Your task to perform on an android device: all mails in gmail Image 0: 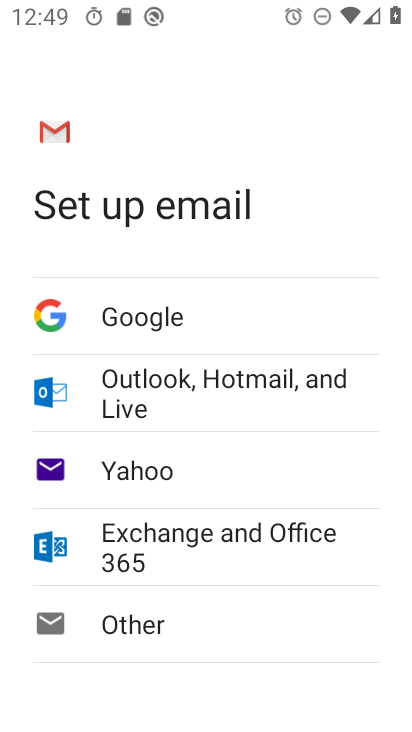
Step 0: press back button
Your task to perform on an android device: all mails in gmail Image 1: 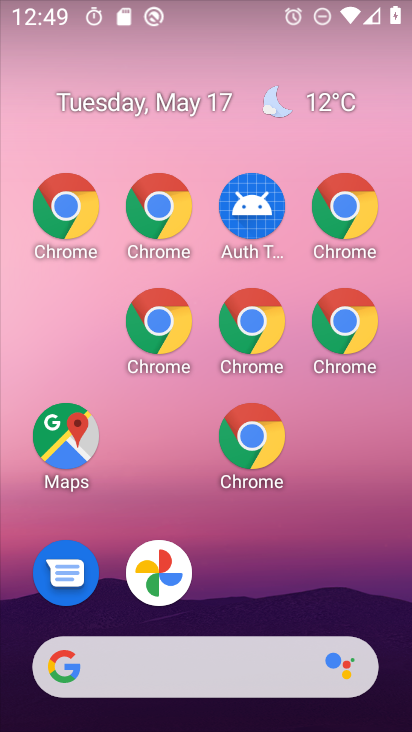
Step 1: press home button
Your task to perform on an android device: all mails in gmail Image 2: 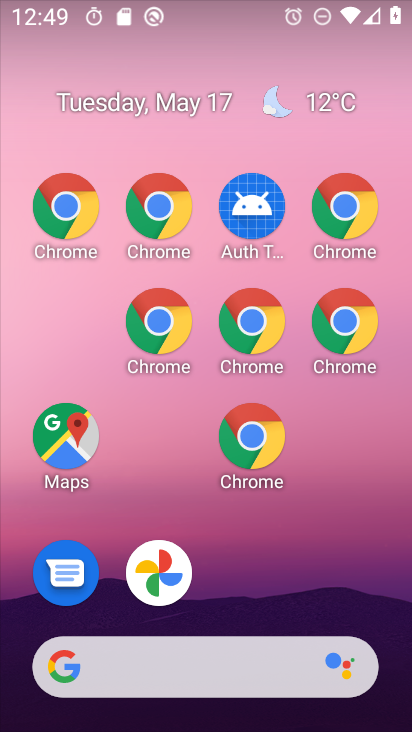
Step 2: drag from (362, 630) to (185, 197)
Your task to perform on an android device: all mails in gmail Image 3: 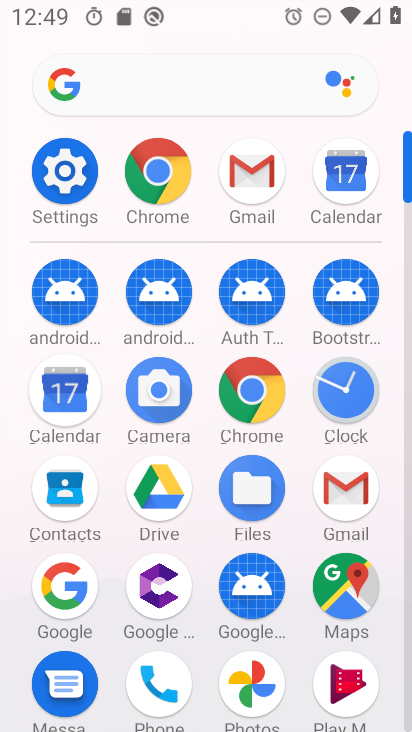
Step 3: click (358, 492)
Your task to perform on an android device: all mails in gmail Image 4: 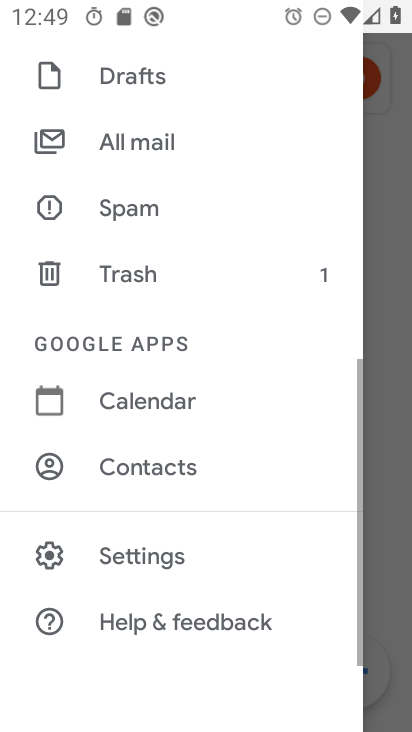
Step 4: click (337, 483)
Your task to perform on an android device: all mails in gmail Image 5: 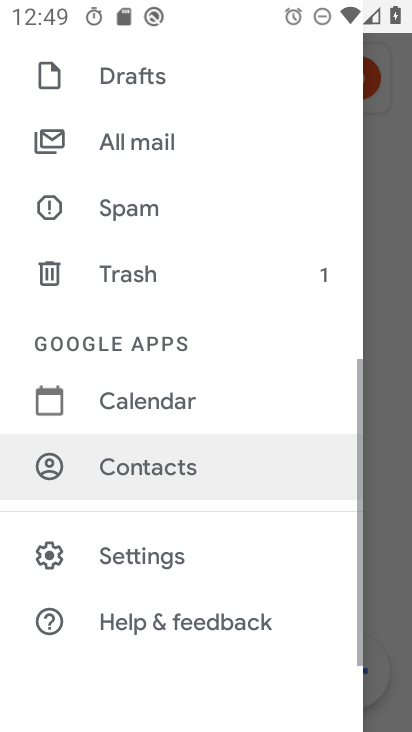
Step 5: click (343, 487)
Your task to perform on an android device: all mails in gmail Image 6: 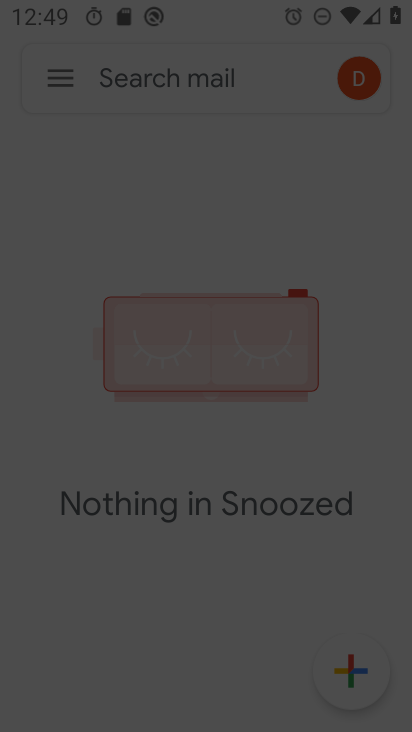
Step 6: click (143, 144)
Your task to perform on an android device: all mails in gmail Image 7: 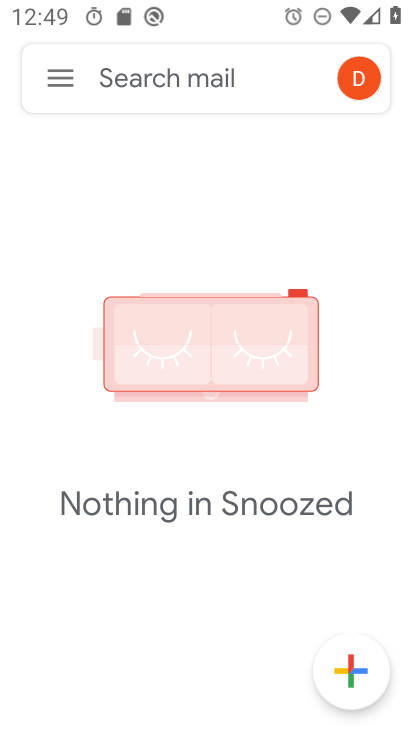
Step 7: click (55, 82)
Your task to perform on an android device: all mails in gmail Image 8: 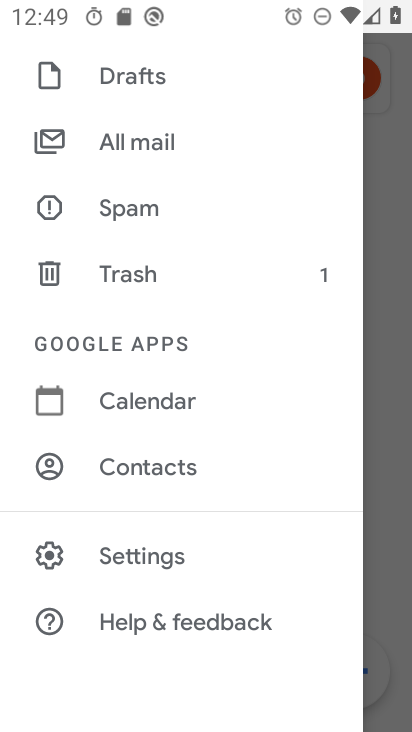
Step 8: click (140, 140)
Your task to perform on an android device: all mails in gmail Image 9: 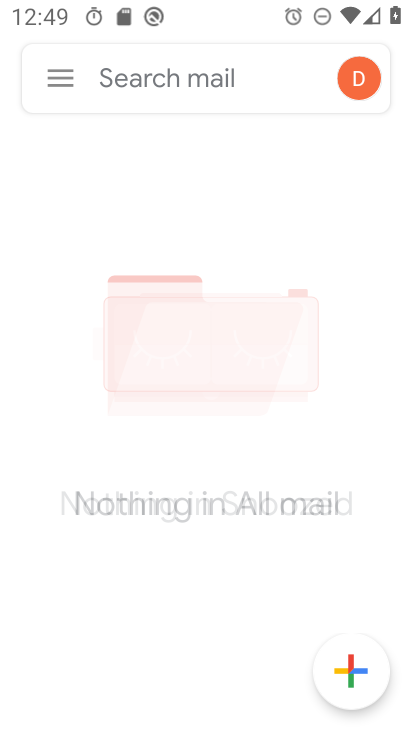
Step 9: click (145, 142)
Your task to perform on an android device: all mails in gmail Image 10: 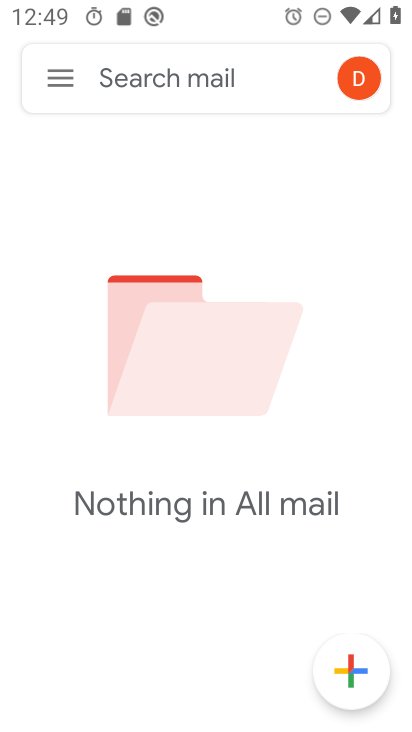
Step 10: task complete